Your task to perform on an android device: Go to Reddit.com Image 0: 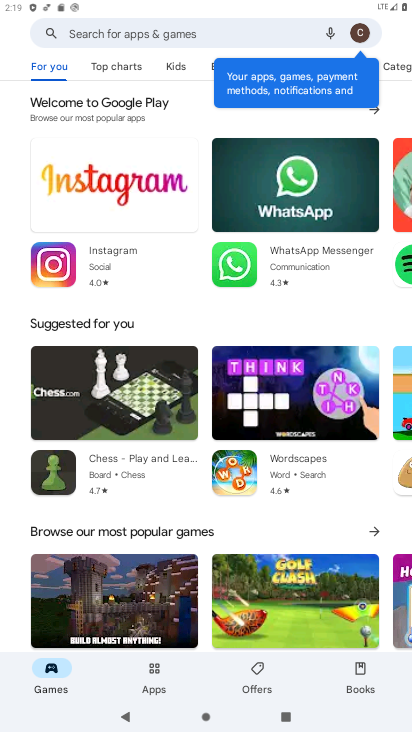
Step 0: press home button
Your task to perform on an android device: Go to Reddit.com Image 1: 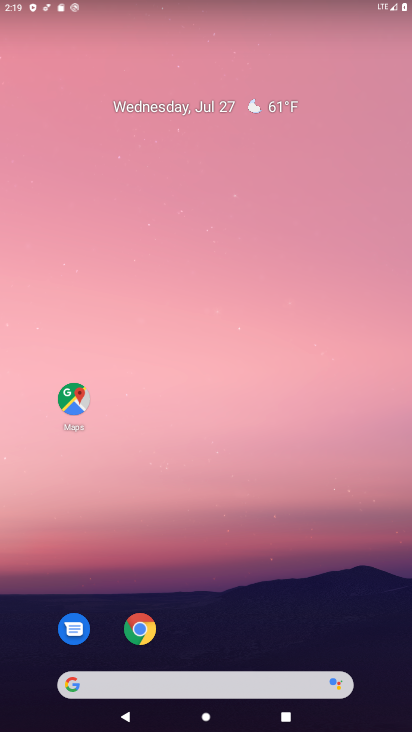
Step 1: click (141, 629)
Your task to perform on an android device: Go to Reddit.com Image 2: 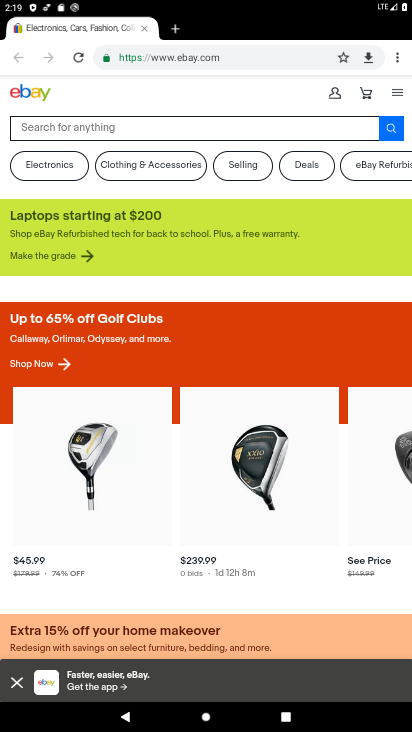
Step 2: click (269, 58)
Your task to perform on an android device: Go to Reddit.com Image 3: 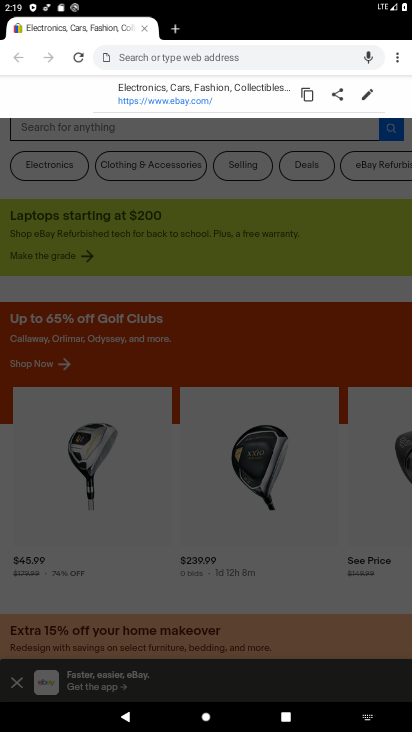
Step 3: type "Reddit.com"
Your task to perform on an android device: Go to Reddit.com Image 4: 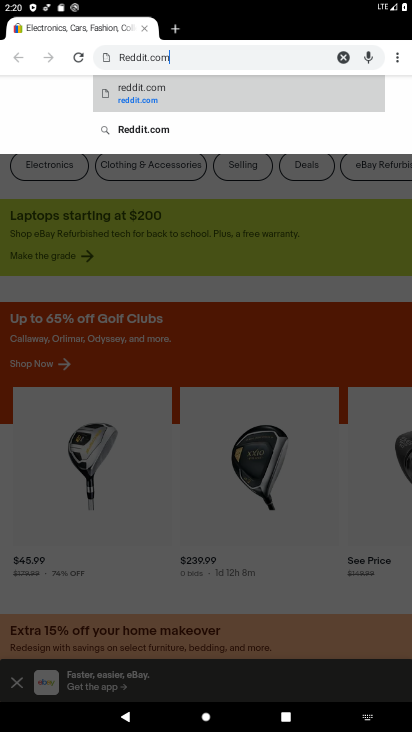
Step 4: type ""
Your task to perform on an android device: Go to Reddit.com Image 5: 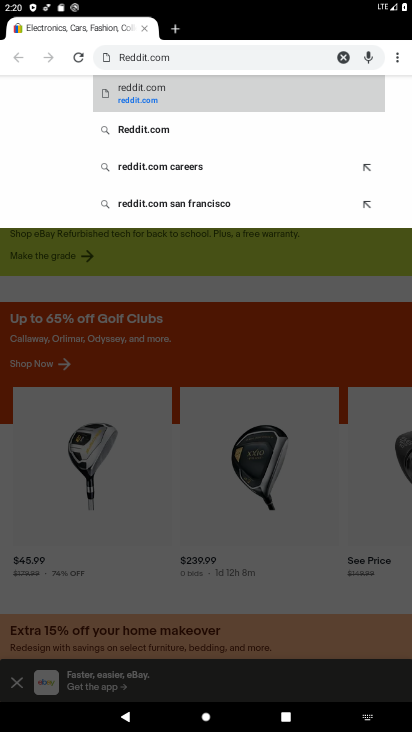
Step 5: click (173, 134)
Your task to perform on an android device: Go to Reddit.com Image 6: 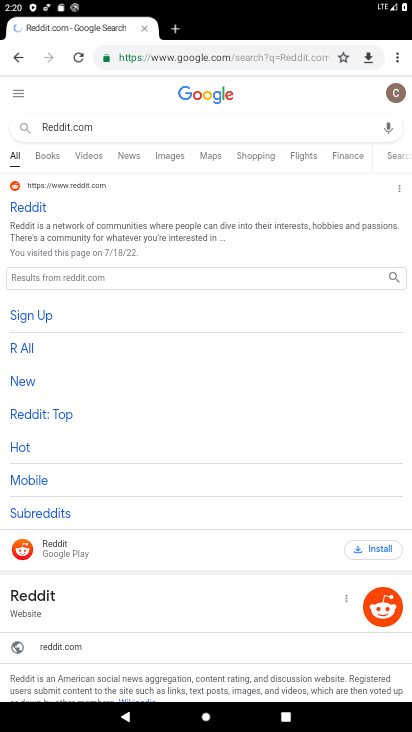
Step 6: click (39, 206)
Your task to perform on an android device: Go to Reddit.com Image 7: 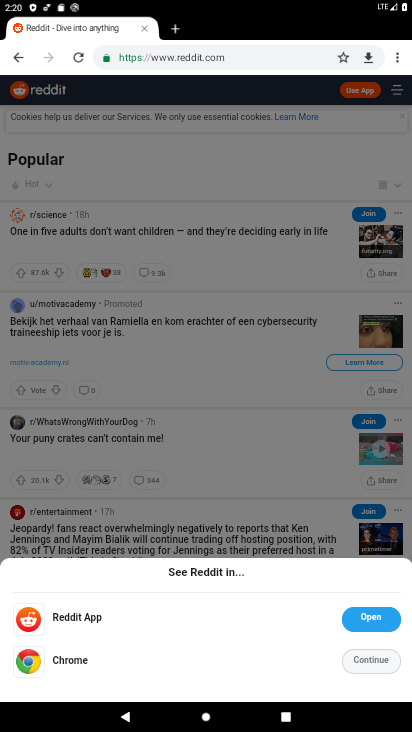
Step 7: click (366, 662)
Your task to perform on an android device: Go to Reddit.com Image 8: 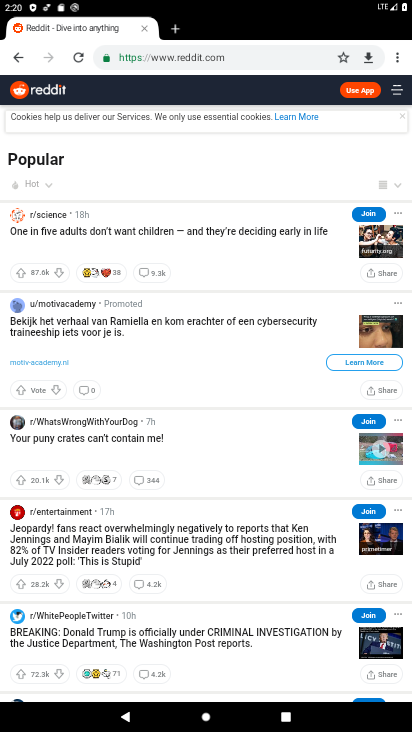
Step 8: task complete